Your task to perform on an android device: Search for pizza restaurants on Maps Image 0: 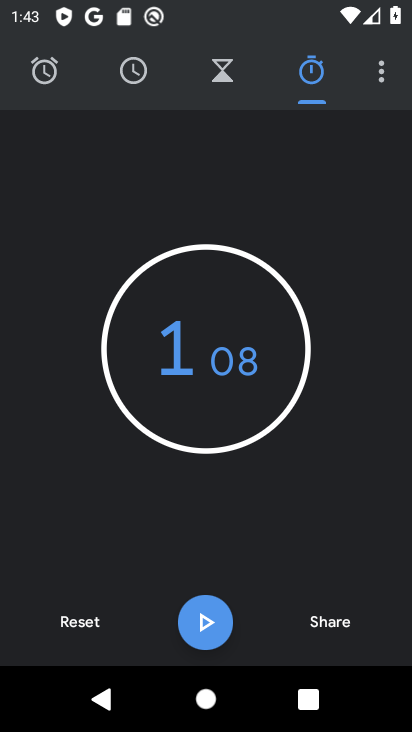
Step 0: press home button
Your task to perform on an android device: Search for pizza restaurants on Maps Image 1: 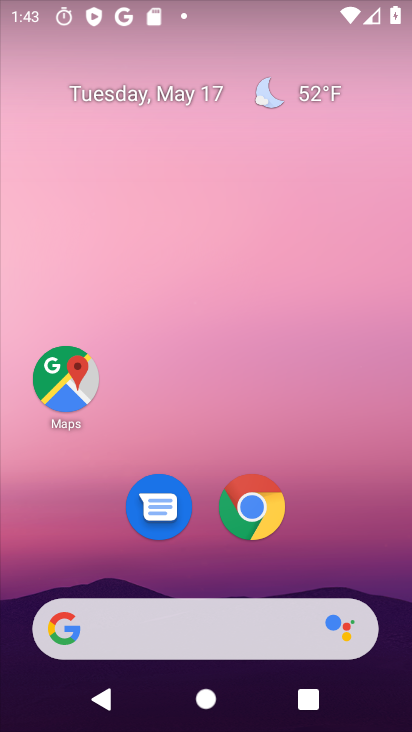
Step 1: click (66, 384)
Your task to perform on an android device: Search for pizza restaurants on Maps Image 2: 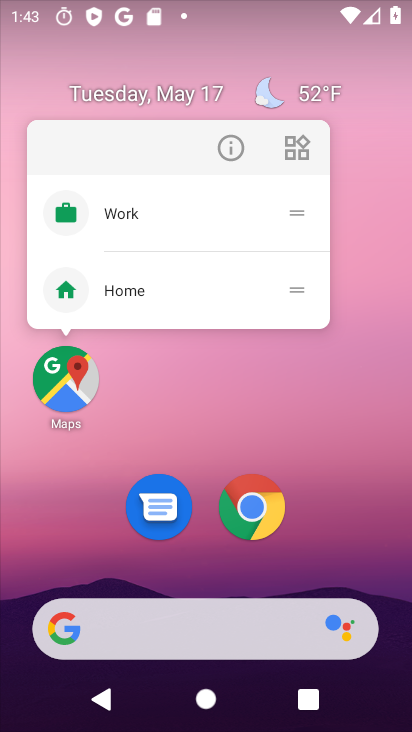
Step 2: click (77, 379)
Your task to perform on an android device: Search for pizza restaurants on Maps Image 3: 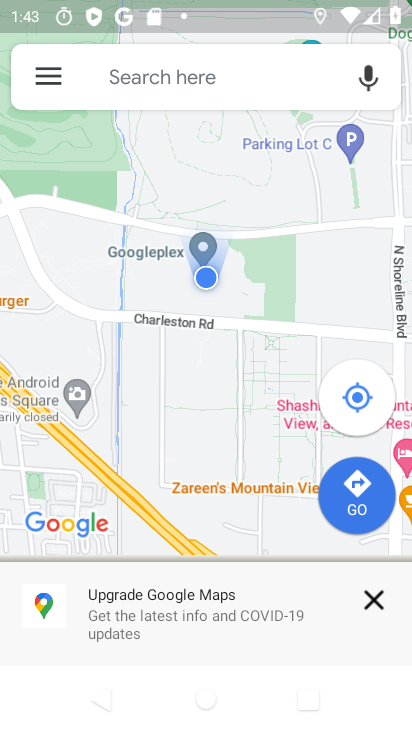
Step 3: click (227, 76)
Your task to perform on an android device: Search for pizza restaurants on Maps Image 4: 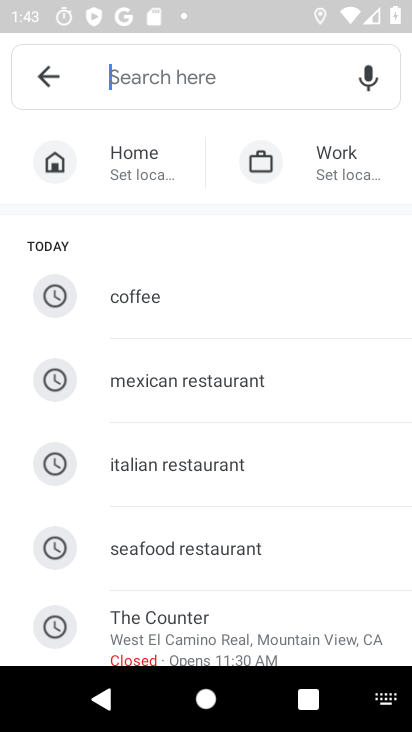
Step 4: type "pizza restaurent"
Your task to perform on an android device: Search for pizza restaurants on Maps Image 5: 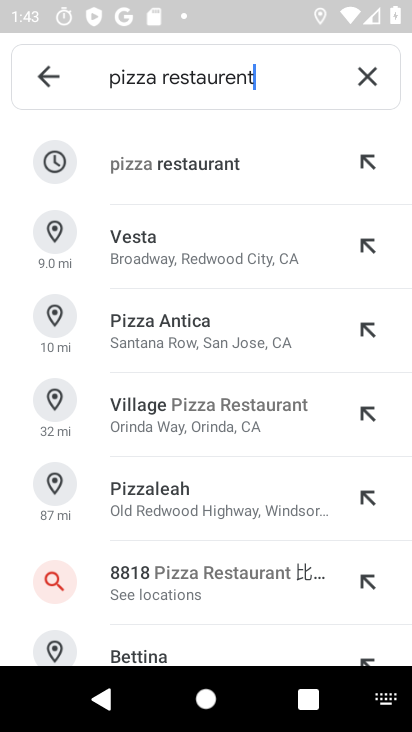
Step 5: click (175, 188)
Your task to perform on an android device: Search for pizza restaurants on Maps Image 6: 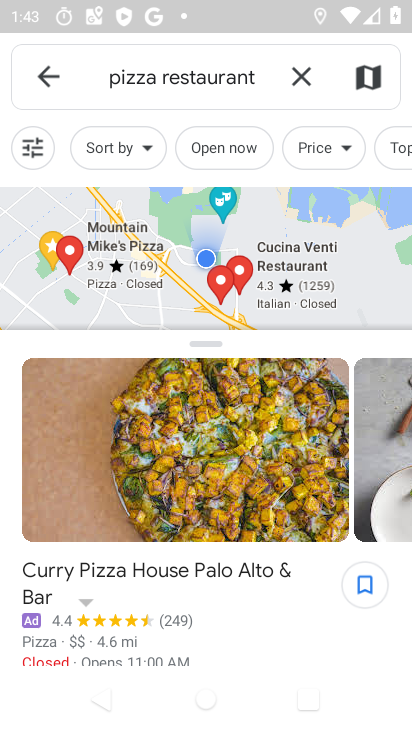
Step 6: task complete